Your task to perform on an android device: Go to wifi settings Image 0: 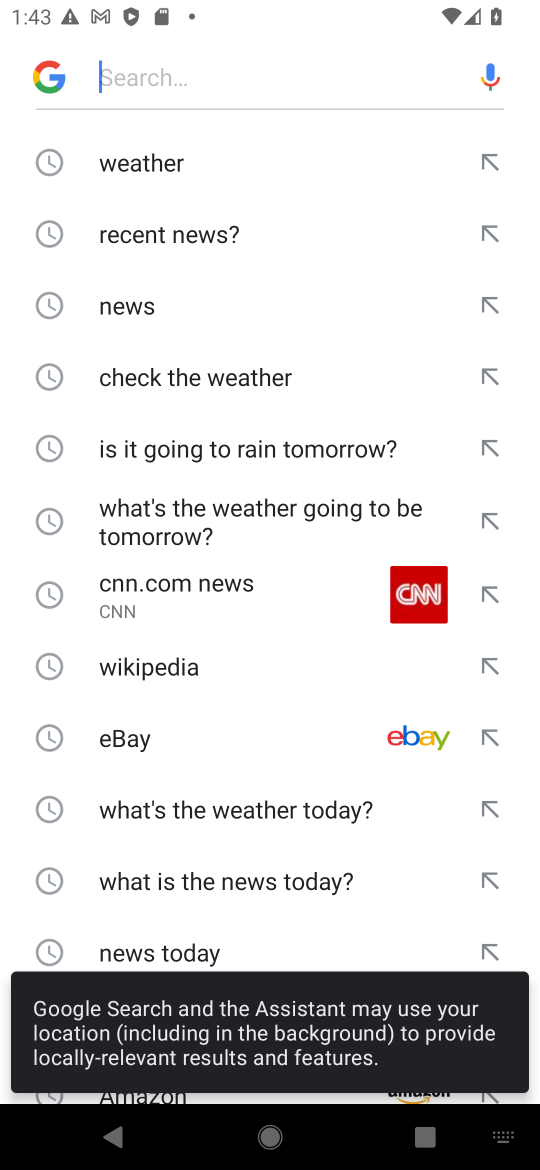
Step 0: press home button
Your task to perform on an android device: Go to wifi settings Image 1: 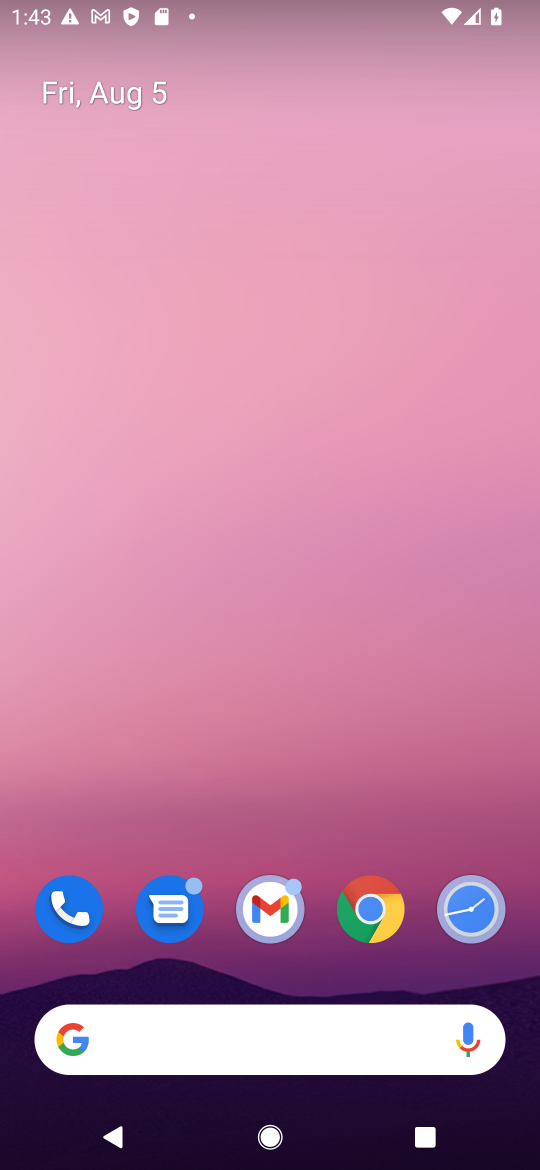
Step 1: drag from (320, 824) to (270, 80)
Your task to perform on an android device: Go to wifi settings Image 2: 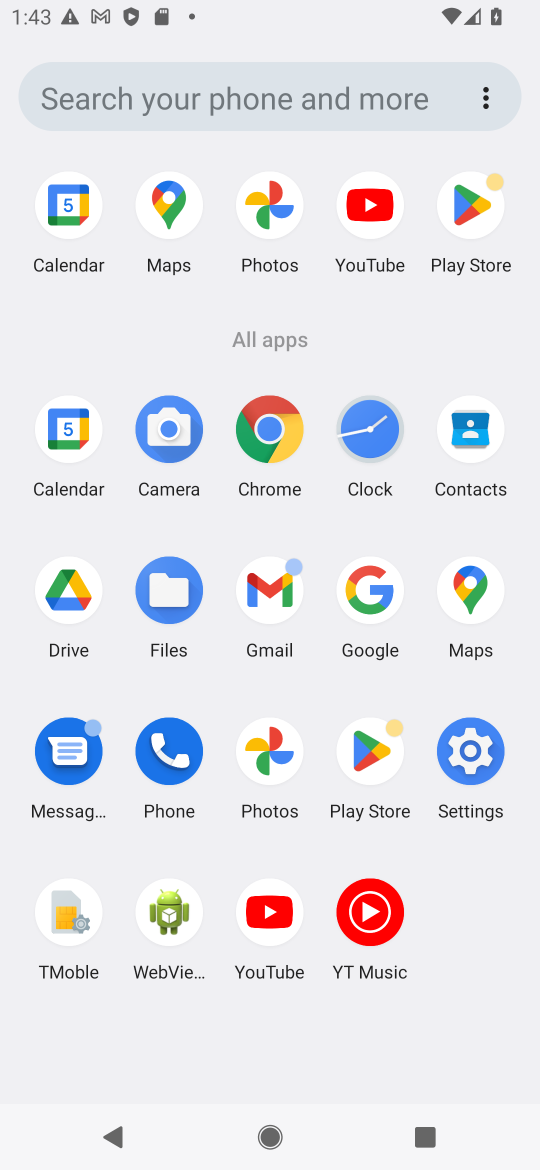
Step 2: click (465, 742)
Your task to perform on an android device: Go to wifi settings Image 3: 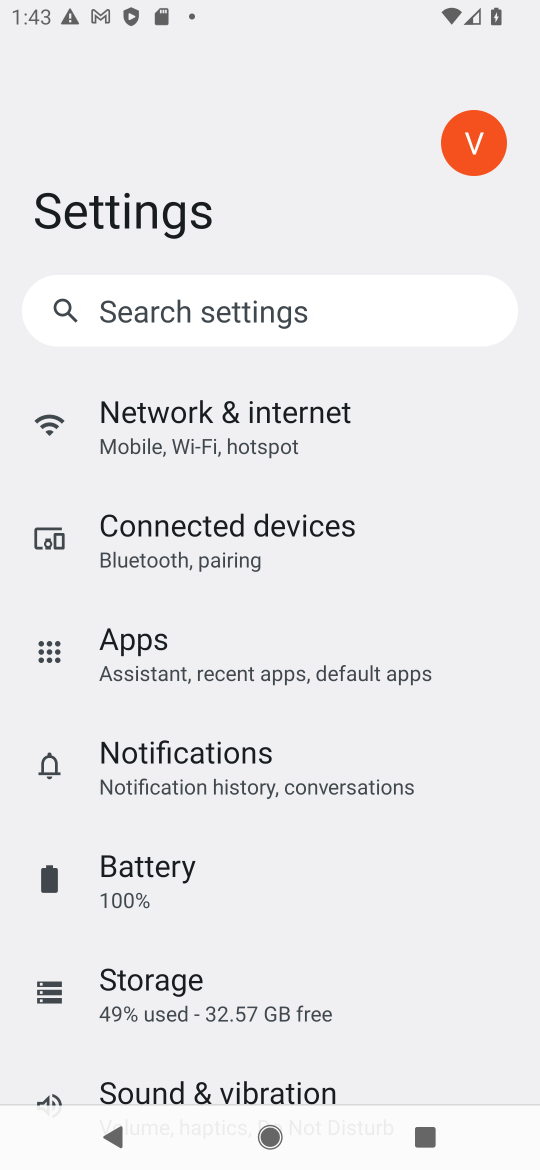
Step 3: click (226, 412)
Your task to perform on an android device: Go to wifi settings Image 4: 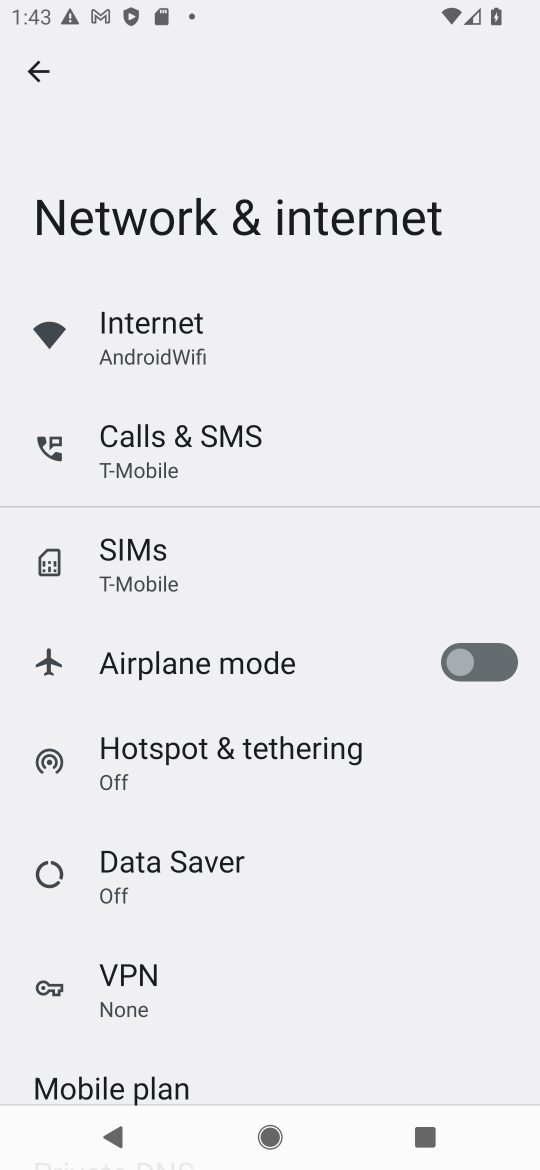
Step 4: click (123, 311)
Your task to perform on an android device: Go to wifi settings Image 5: 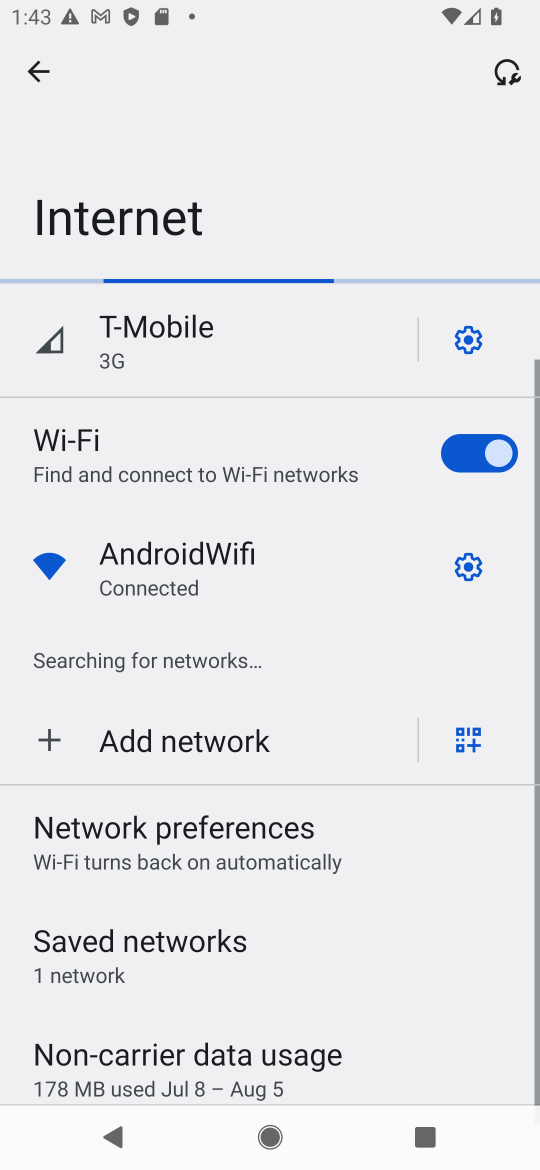
Step 5: click (48, 434)
Your task to perform on an android device: Go to wifi settings Image 6: 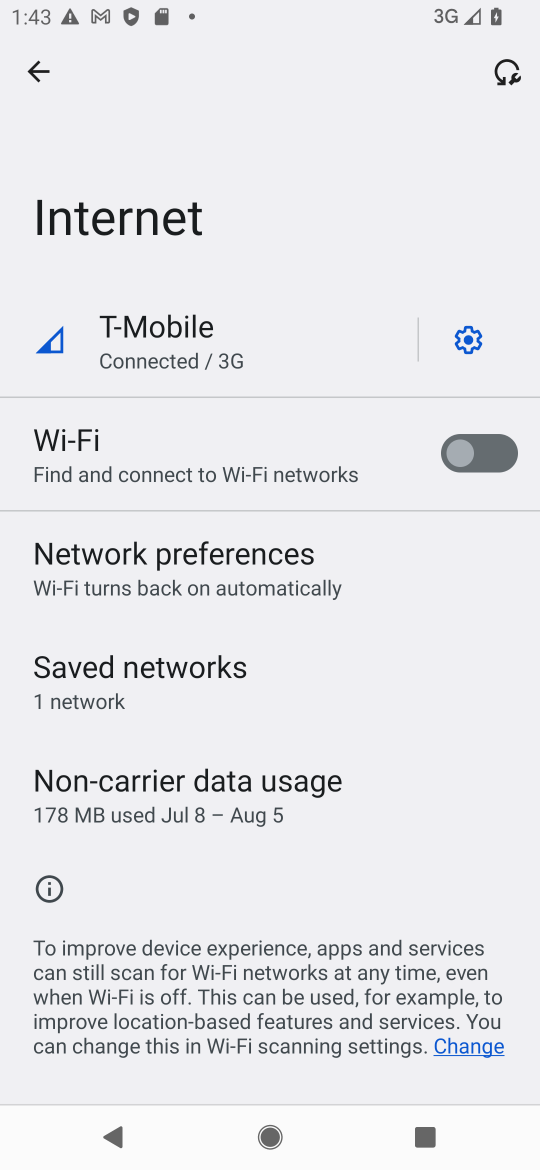
Step 6: task complete